Your task to perform on an android device: Open network settings Image 0: 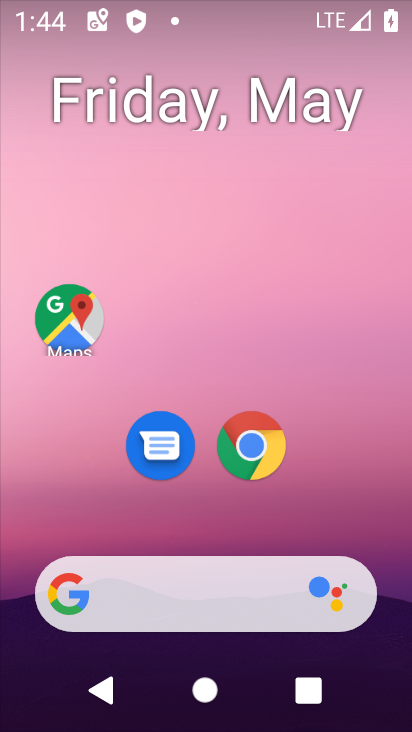
Step 0: press home button
Your task to perform on an android device: Open network settings Image 1: 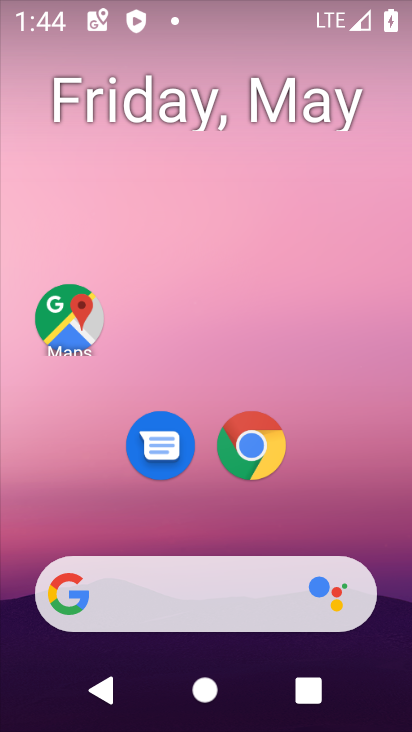
Step 1: drag from (210, 531) to (252, 22)
Your task to perform on an android device: Open network settings Image 2: 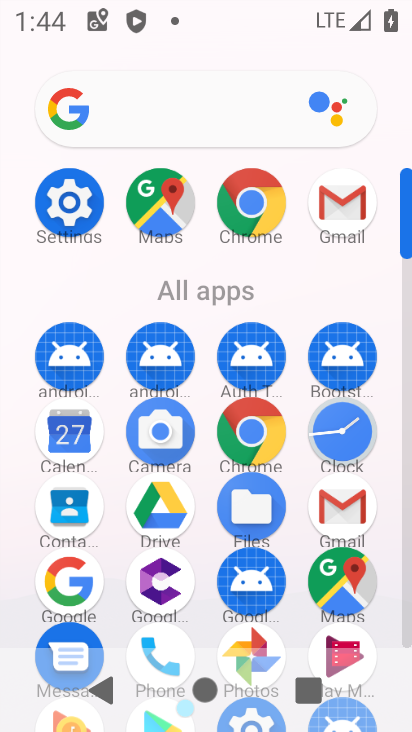
Step 2: click (62, 191)
Your task to perform on an android device: Open network settings Image 3: 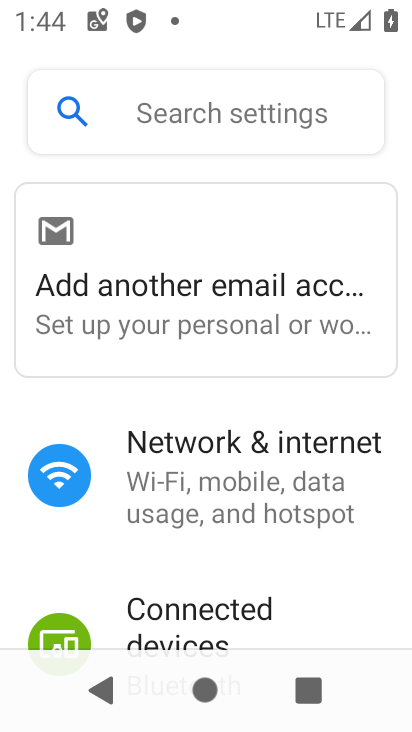
Step 3: click (108, 464)
Your task to perform on an android device: Open network settings Image 4: 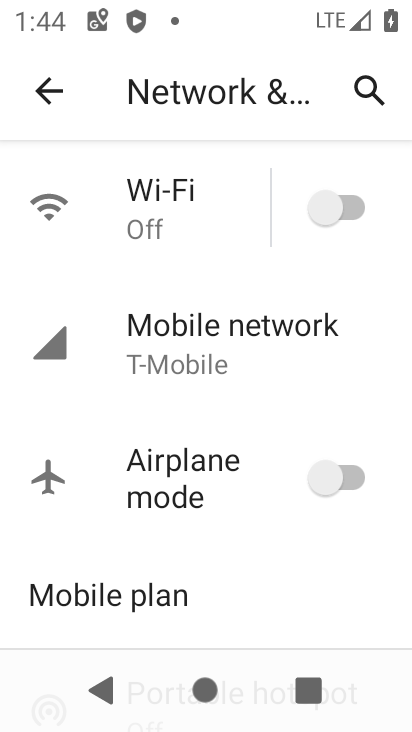
Step 4: drag from (222, 602) to (230, 165)
Your task to perform on an android device: Open network settings Image 5: 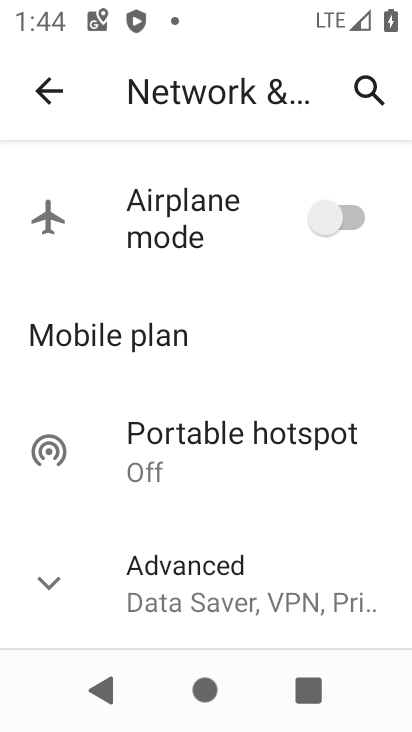
Step 5: click (46, 574)
Your task to perform on an android device: Open network settings Image 6: 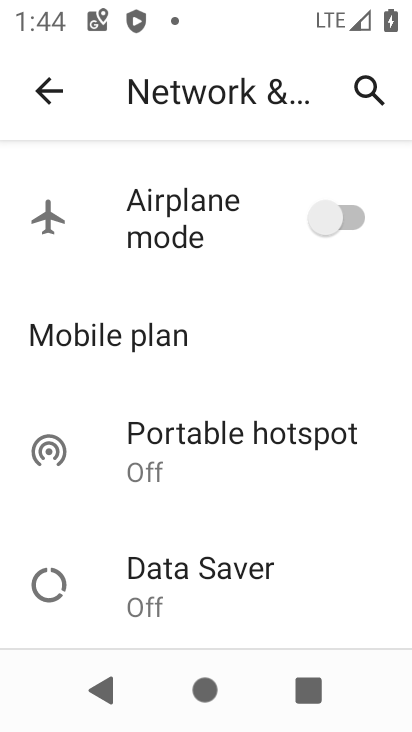
Step 6: task complete